Your task to perform on an android device: snooze an email in the gmail app Image 0: 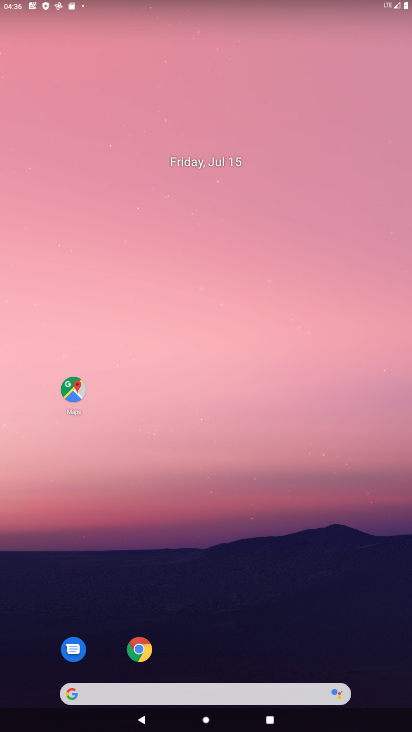
Step 0: drag from (289, 600) to (290, 63)
Your task to perform on an android device: snooze an email in the gmail app Image 1: 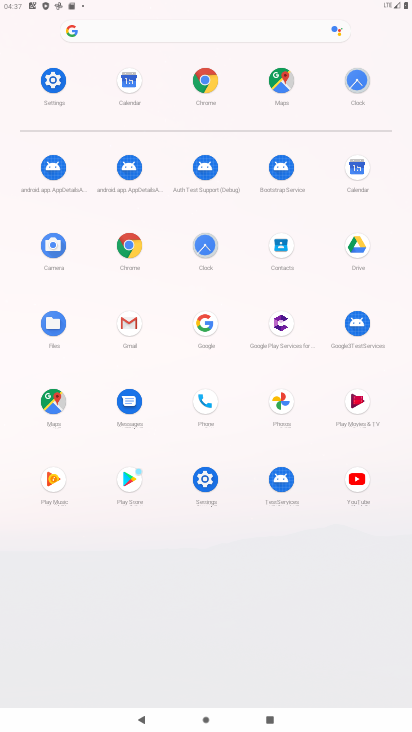
Step 1: click (127, 329)
Your task to perform on an android device: snooze an email in the gmail app Image 2: 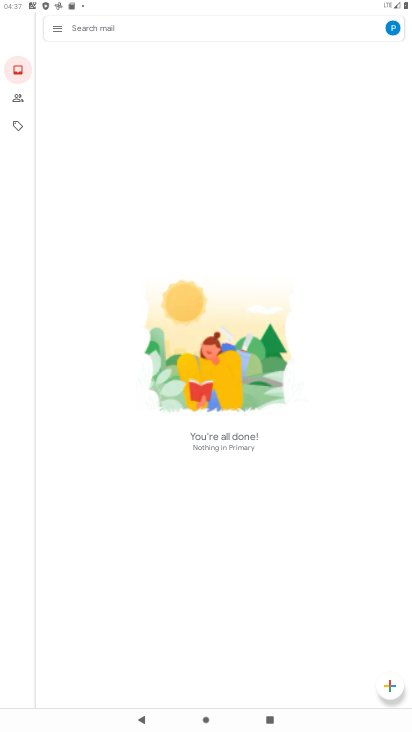
Step 2: click (52, 28)
Your task to perform on an android device: snooze an email in the gmail app Image 3: 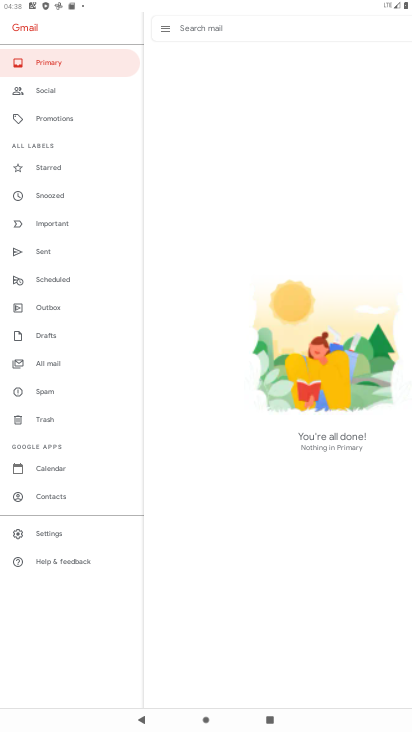
Step 3: click (48, 203)
Your task to perform on an android device: snooze an email in the gmail app Image 4: 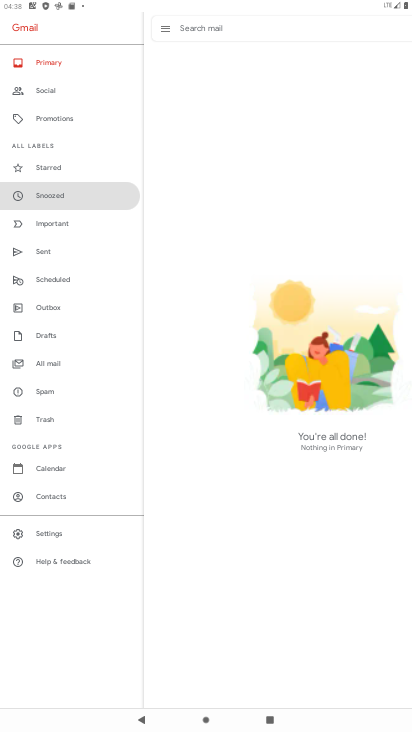
Step 4: click (48, 201)
Your task to perform on an android device: snooze an email in the gmail app Image 5: 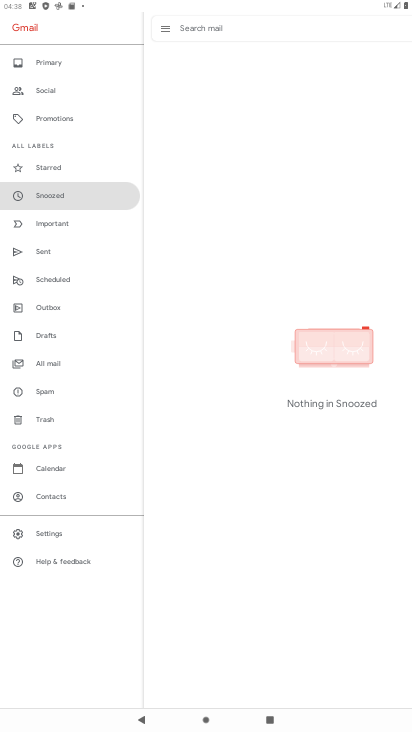
Step 5: click (45, 361)
Your task to perform on an android device: snooze an email in the gmail app Image 6: 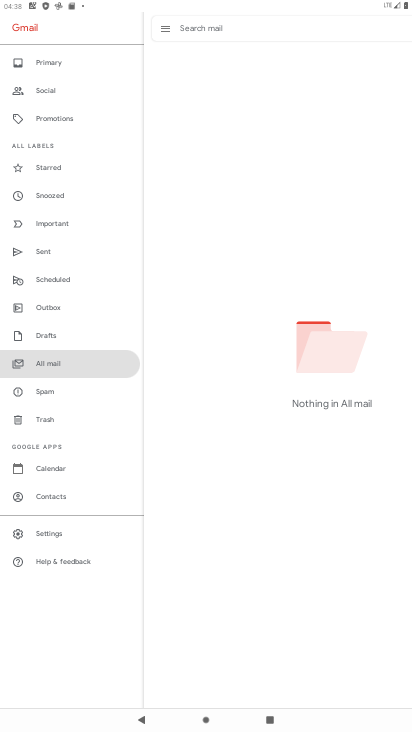
Step 6: task complete